Your task to perform on an android device: Go to battery settings Image 0: 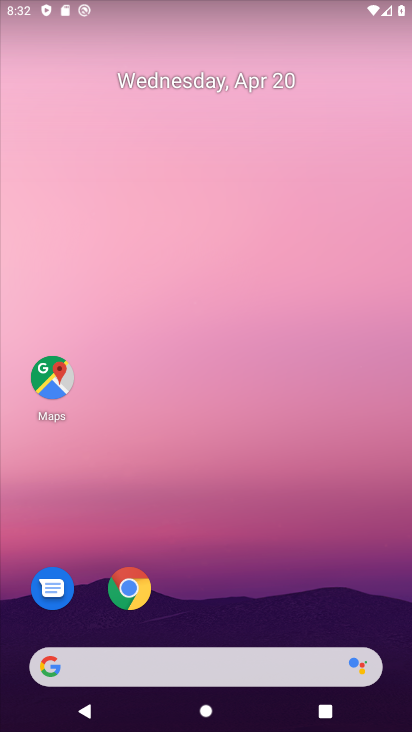
Step 0: drag from (241, 550) to (227, 208)
Your task to perform on an android device: Go to battery settings Image 1: 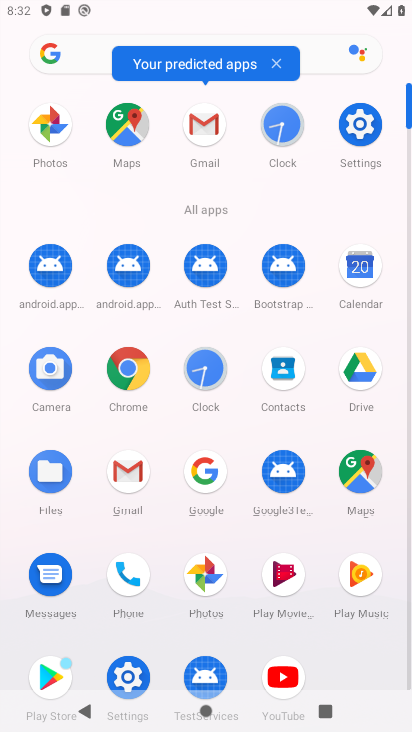
Step 1: click (370, 132)
Your task to perform on an android device: Go to battery settings Image 2: 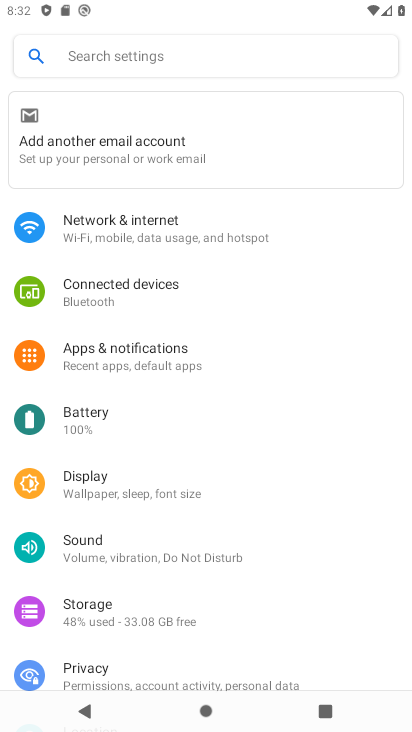
Step 2: click (123, 424)
Your task to perform on an android device: Go to battery settings Image 3: 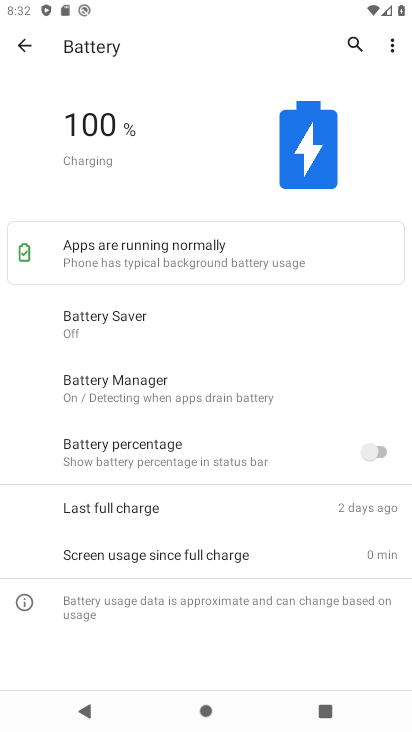
Step 3: task complete